Your task to perform on an android device: snooze an email in the gmail app Image 0: 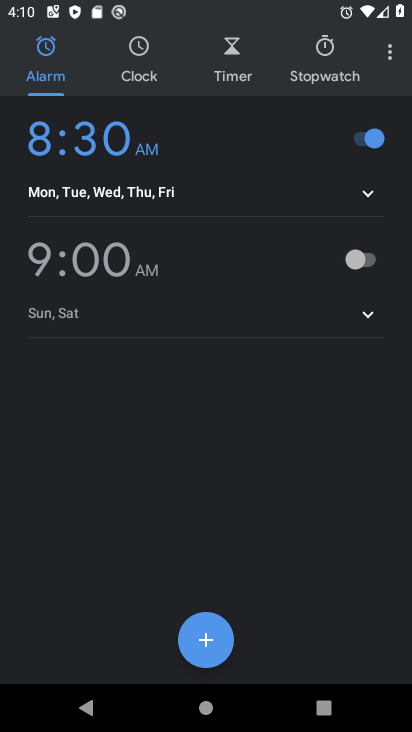
Step 0: press home button
Your task to perform on an android device: snooze an email in the gmail app Image 1: 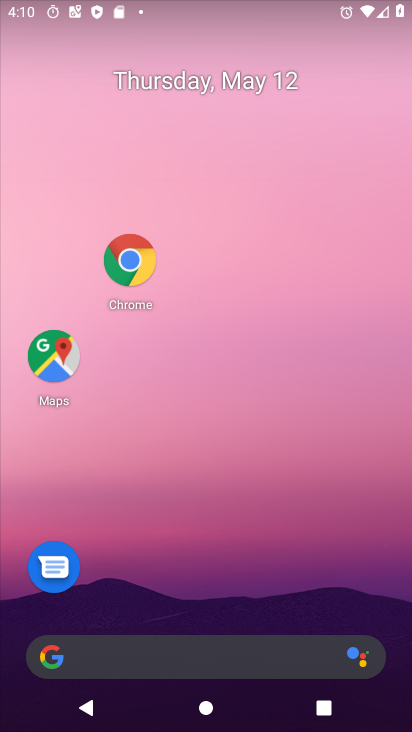
Step 1: drag from (191, 628) to (178, 323)
Your task to perform on an android device: snooze an email in the gmail app Image 2: 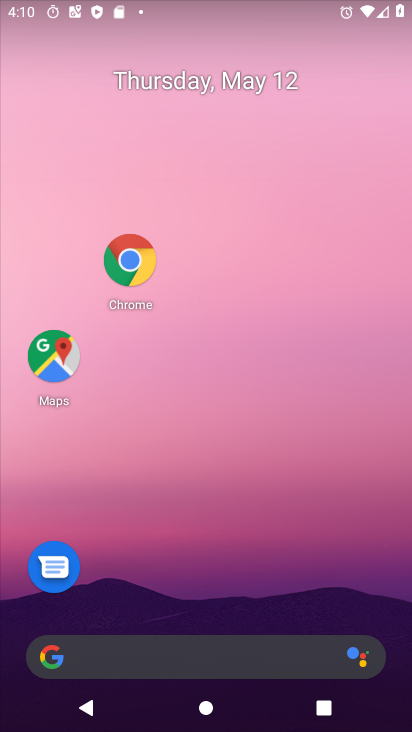
Step 2: drag from (252, 623) to (284, 181)
Your task to perform on an android device: snooze an email in the gmail app Image 3: 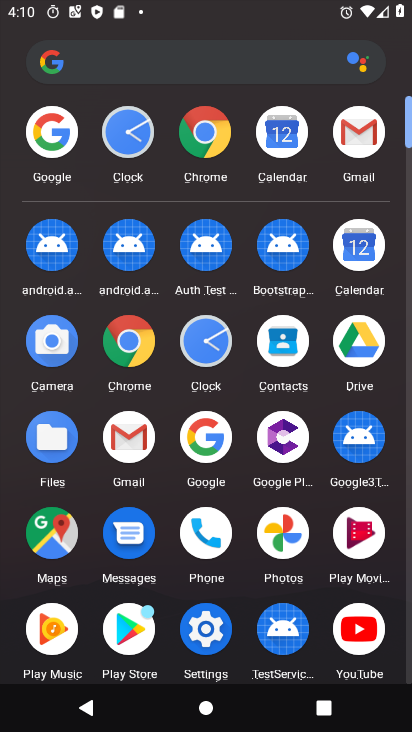
Step 3: click (361, 148)
Your task to perform on an android device: snooze an email in the gmail app Image 4: 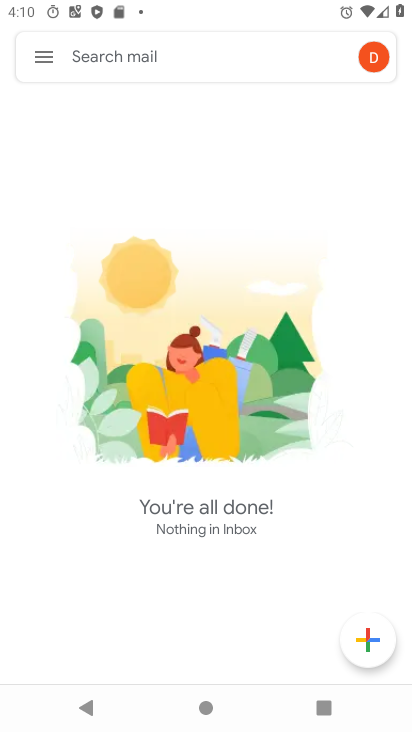
Step 4: click (47, 62)
Your task to perform on an android device: snooze an email in the gmail app Image 5: 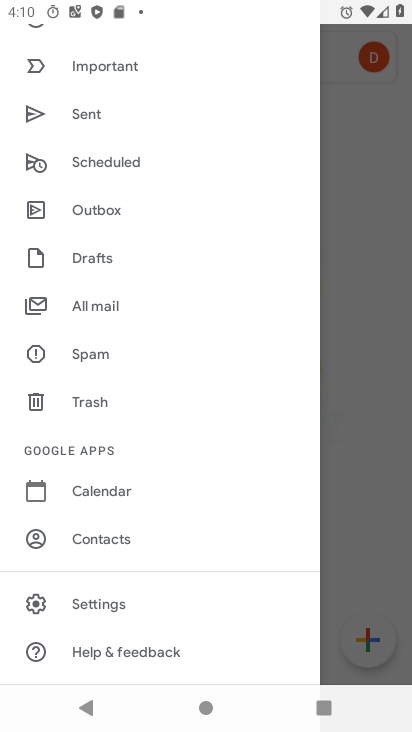
Step 5: drag from (116, 73) to (135, 329)
Your task to perform on an android device: snooze an email in the gmail app Image 6: 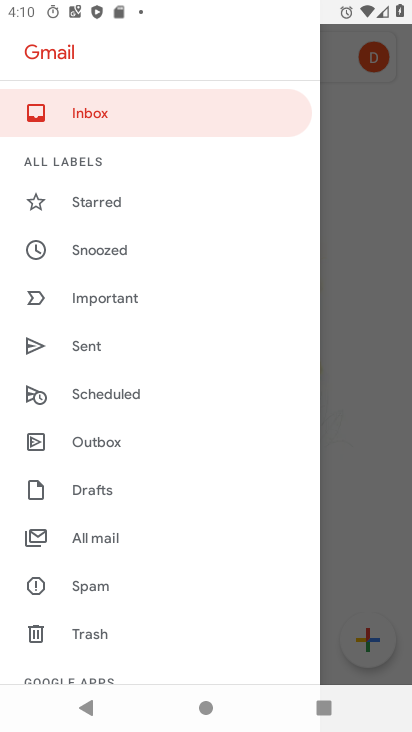
Step 6: click (105, 246)
Your task to perform on an android device: snooze an email in the gmail app Image 7: 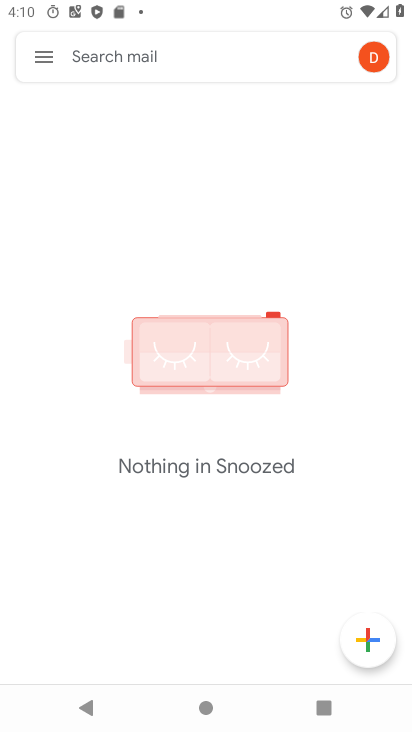
Step 7: task complete